Your task to perform on an android device: toggle show notifications on the lock screen Image 0: 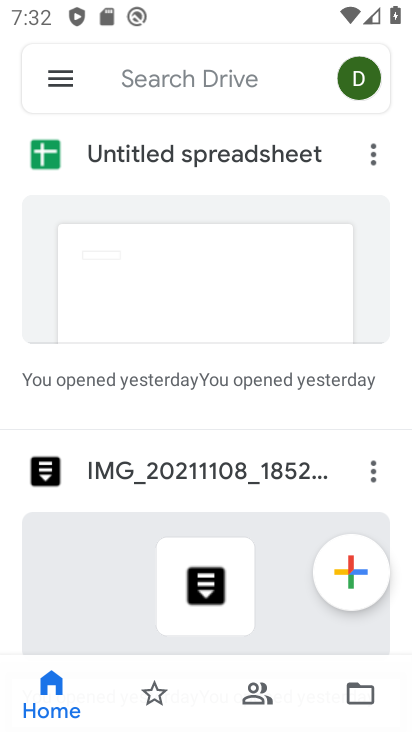
Step 0: press home button
Your task to perform on an android device: toggle show notifications on the lock screen Image 1: 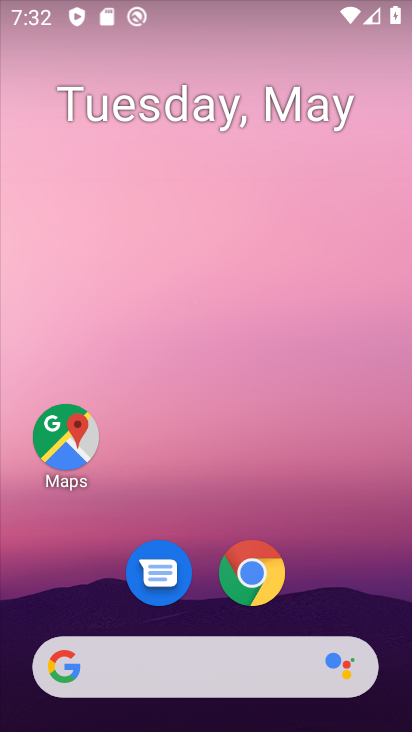
Step 1: drag from (199, 582) to (248, 293)
Your task to perform on an android device: toggle show notifications on the lock screen Image 2: 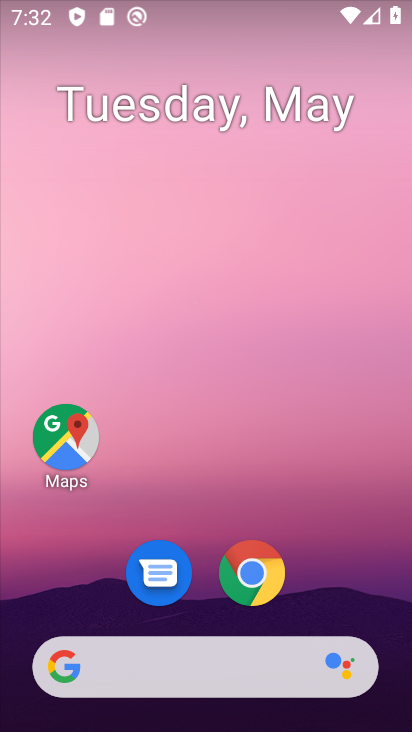
Step 2: drag from (194, 585) to (220, 121)
Your task to perform on an android device: toggle show notifications on the lock screen Image 3: 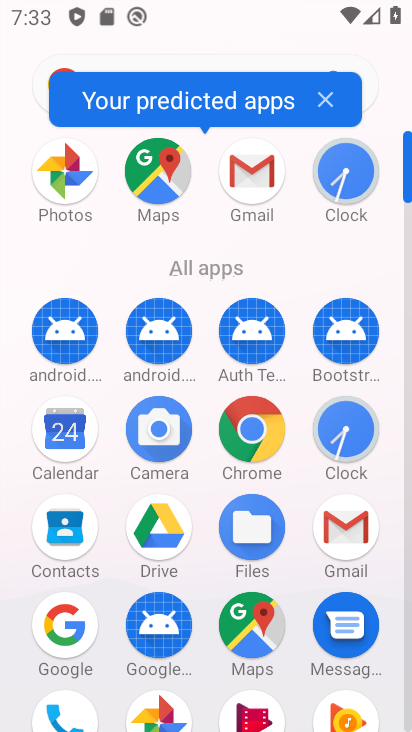
Step 3: drag from (112, 605) to (204, 271)
Your task to perform on an android device: toggle show notifications on the lock screen Image 4: 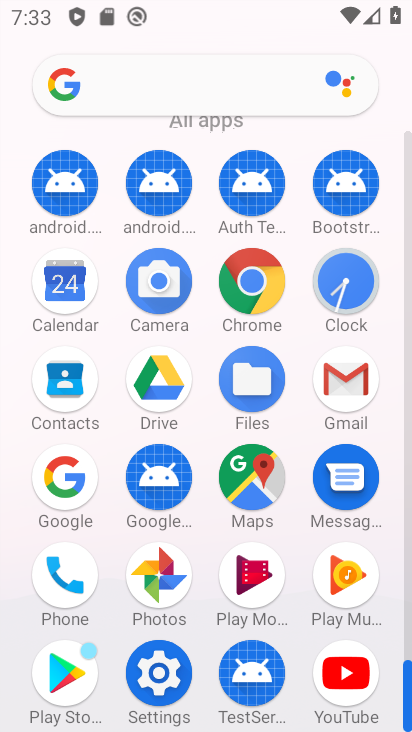
Step 4: click (165, 671)
Your task to perform on an android device: toggle show notifications on the lock screen Image 5: 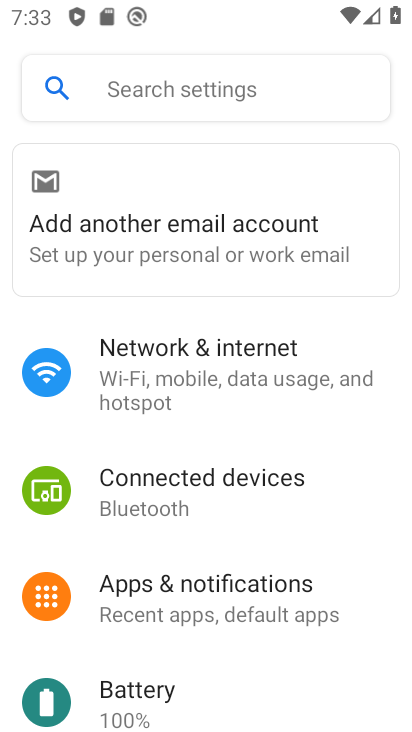
Step 5: click (151, 609)
Your task to perform on an android device: toggle show notifications on the lock screen Image 6: 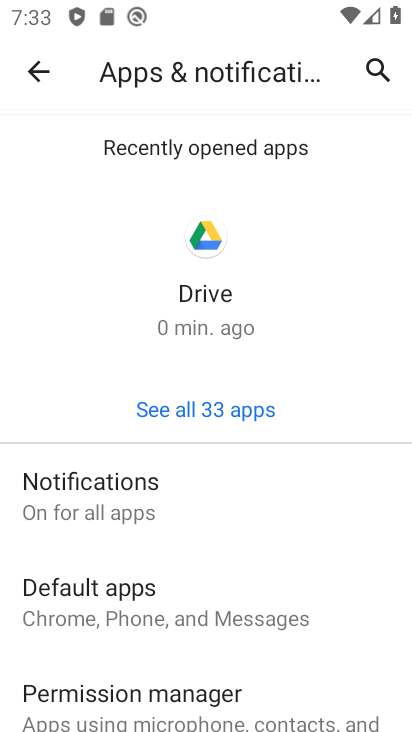
Step 6: click (109, 506)
Your task to perform on an android device: toggle show notifications on the lock screen Image 7: 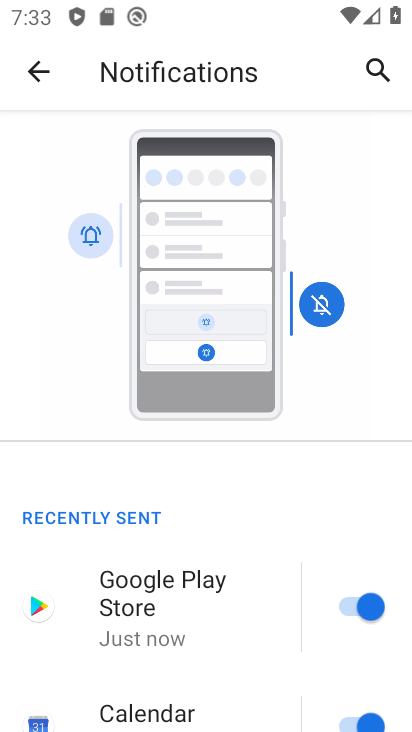
Step 7: drag from (223, 701) to (310, 347)
Your task to perform on an android device: toggle show notifications on the lock screen Image 8: 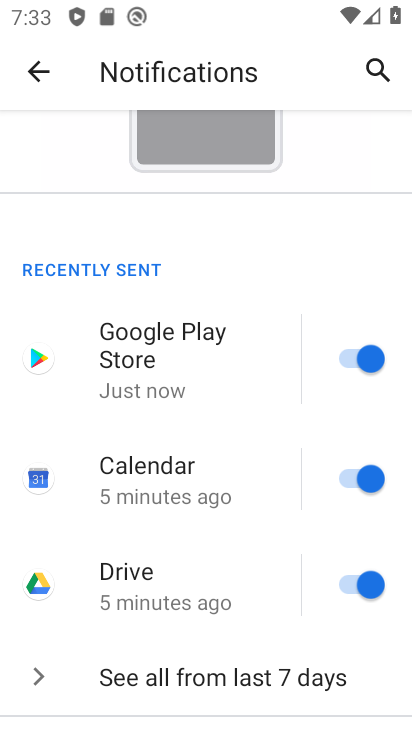
Step 8: drag from (231, 624) to (280, 339)
Your task to perform on an android device: toggle show notifications on the lock screen Image 9: 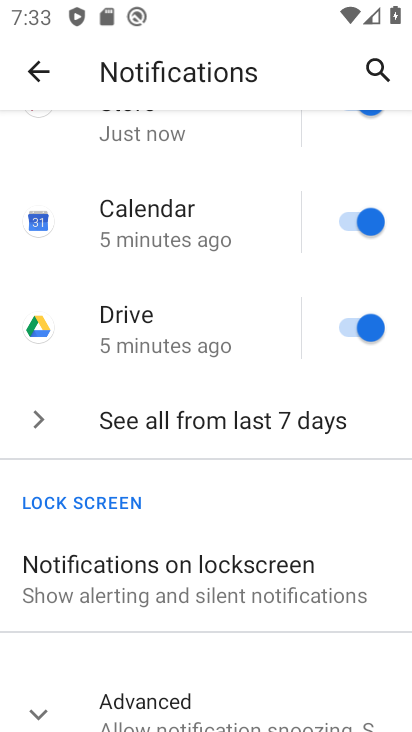
Step 9: click (143, 565)
Your task to perform on an android device: toggle show notifications on the lock screen Image 10: 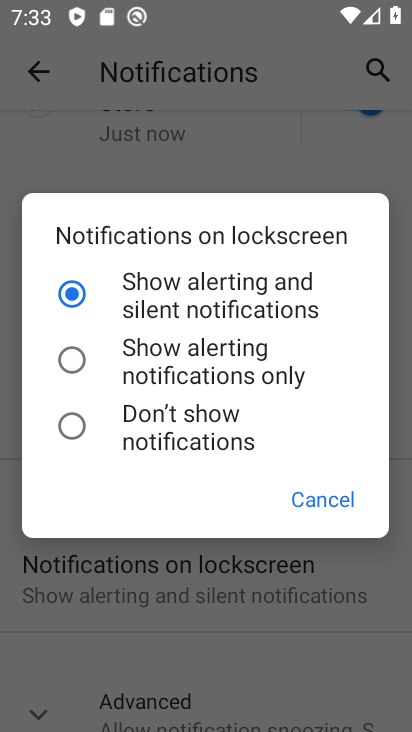
Step 10: task complete